Your task to perform on an android device: set the stopwatch Image 0: 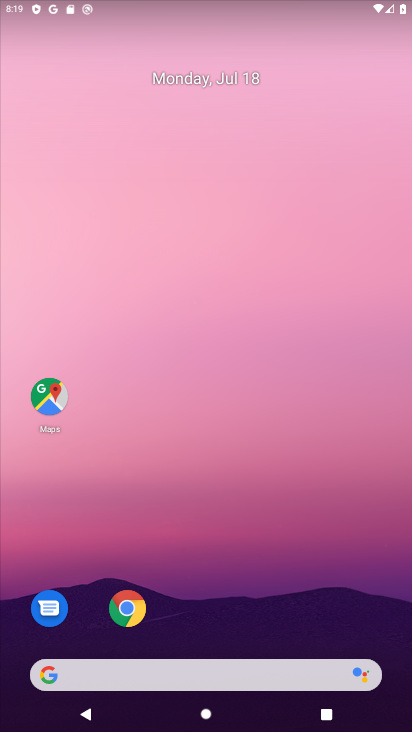
Step 0: drag from (47, 632) to (138, 206)
Your task to perform on an android device: set the stopwatch Image 1: 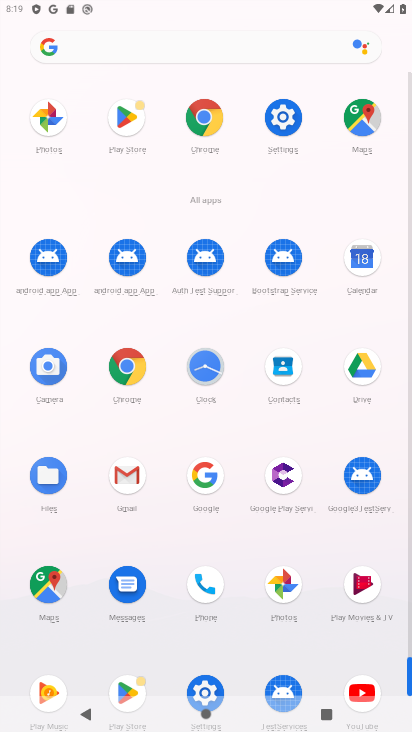
Step 1: click (171, 360)
Your task to perform on an android device: set the stopwatch Image 2: 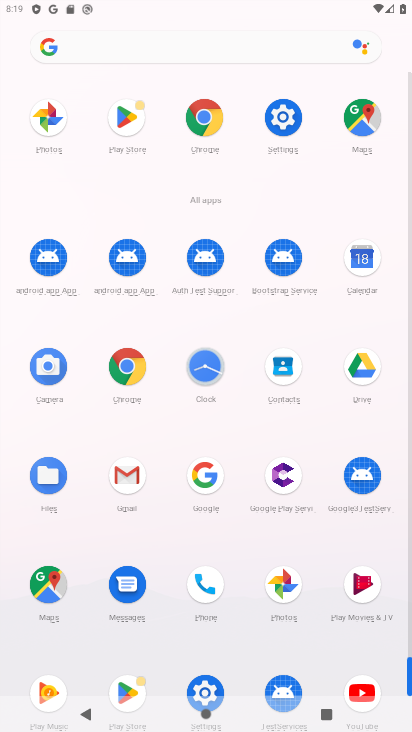
Step 2: click (195, 370)
Your task to perform on an android device: set the stopwatch Image 3: 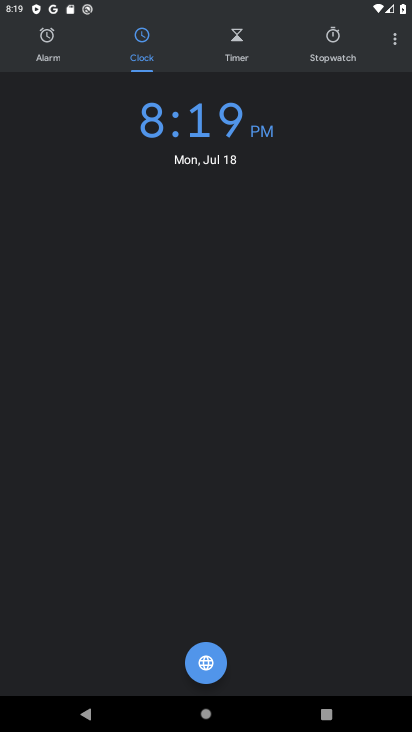
Step 3: click (341, 54)
Your task to perform on an android device: set the stopwatch Image 4: 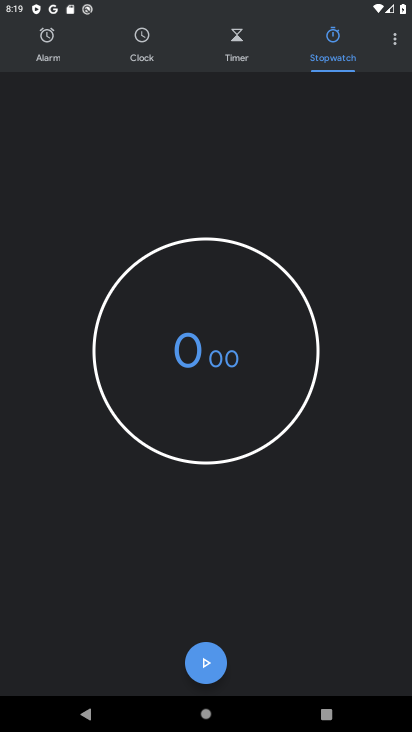
Step 4: click (203, 660)
Your task to perform on an android device: set the stopwatch Image 5: 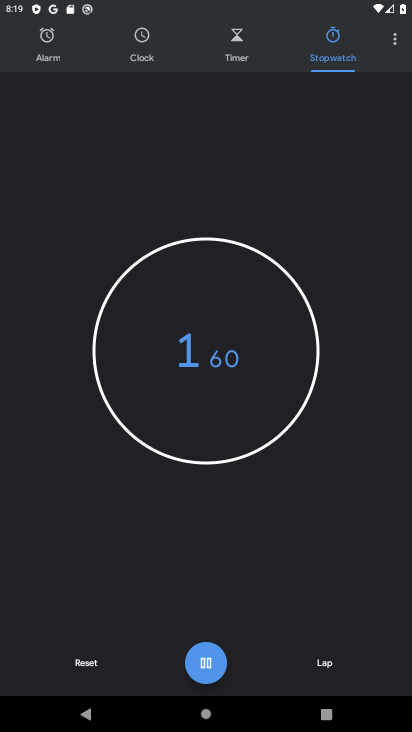
Step 5: click (205, 663)
Your task to perform on an android device: set the stopwatch Image 6: 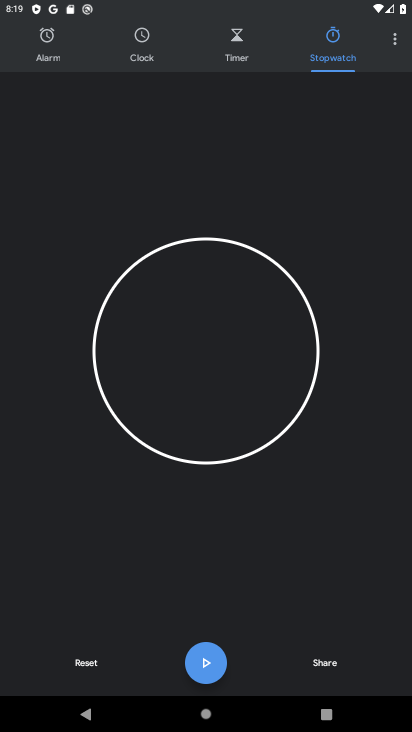
Step 6: task complete